Your task to perform on an android device: Open battery settings Image 0: 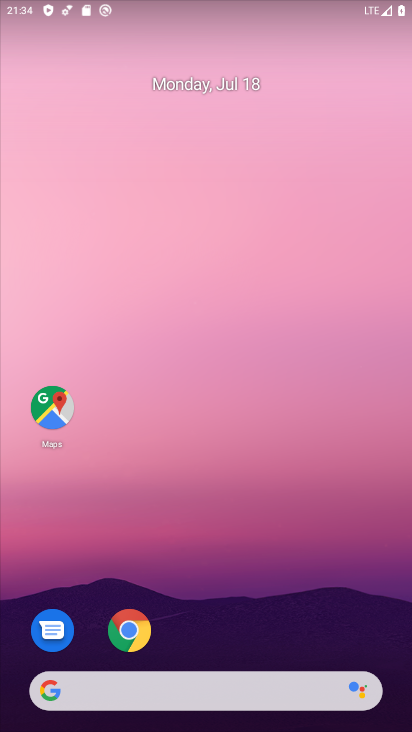
Step 0: drag from (145, 623) to (147, 167)
Your task to perform on an android device: Open battery settings Image 1: 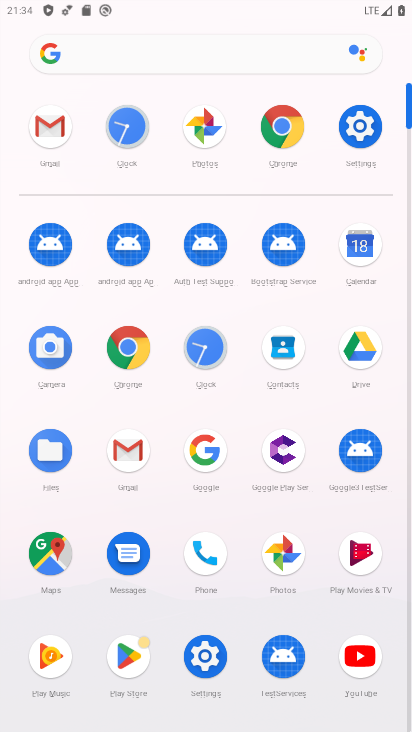
Step 1: click (351, 128)
Your task to perform on an android device: Open battery settings Image 2: 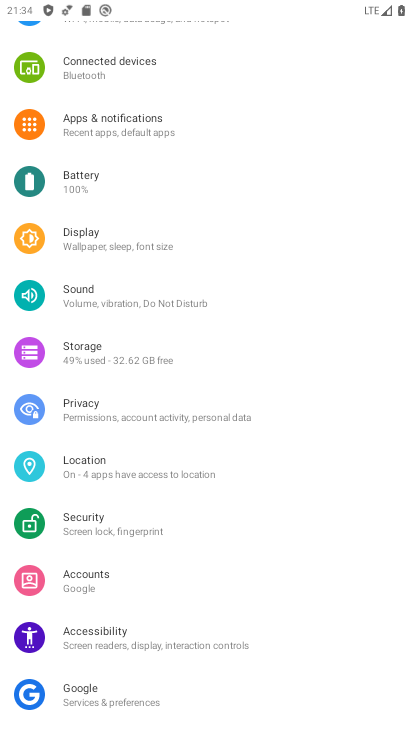
Step 2: click (109, 168)
Your task to perform on an android device: Open battery settings Image 3: 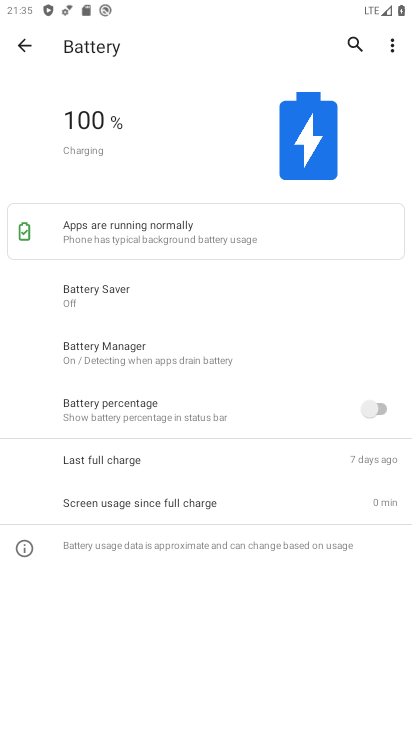
Step 3: task complete